Your task to perform on an android device: find which apps use the phone's location Image 0: 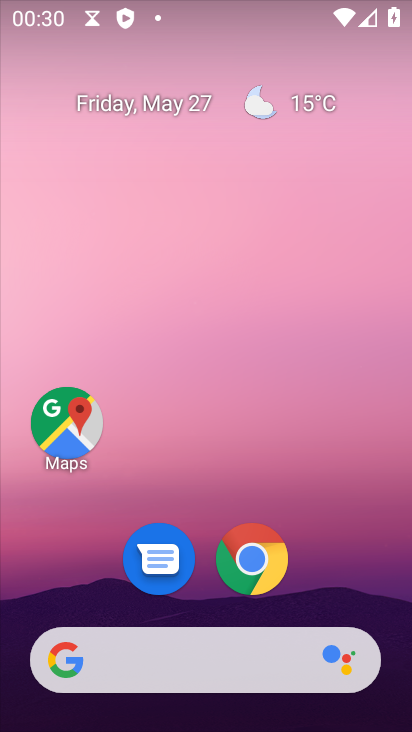
Step 0: drag from (344, 564) to (213, 16)
Your task to perform on an android device: find which apps use the phone's location Image 1: 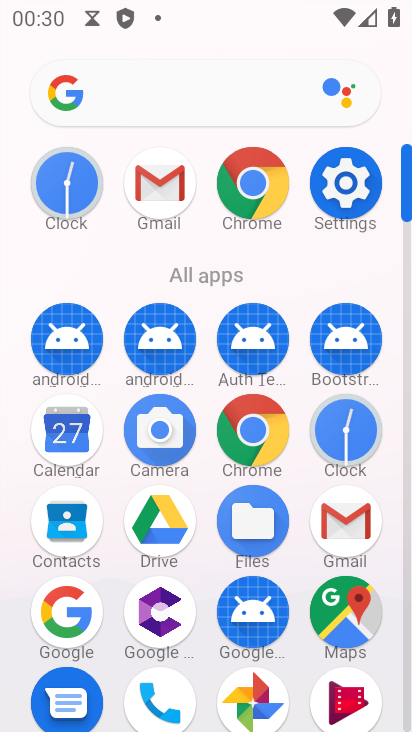
Step 1: click (354, 184)
Your task to perform on an android device: find which apps use the phone's location Image 2: 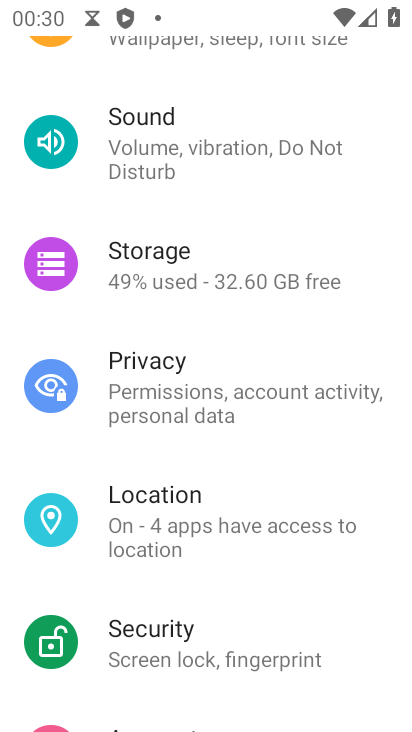
Step 2: click (247, 513)
Your task to perform on an android device: find which apps use the phone's location Image 3: 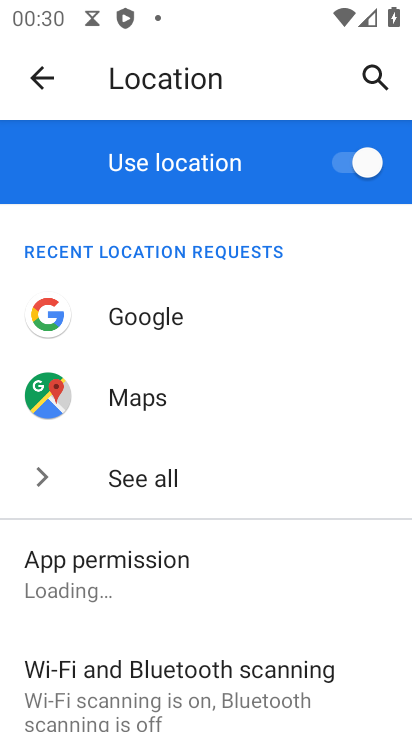
Step 3: drag from (280, 513) to (321, 55)
Your task to perform on an android device: find which apps use the phone's location Image 4: 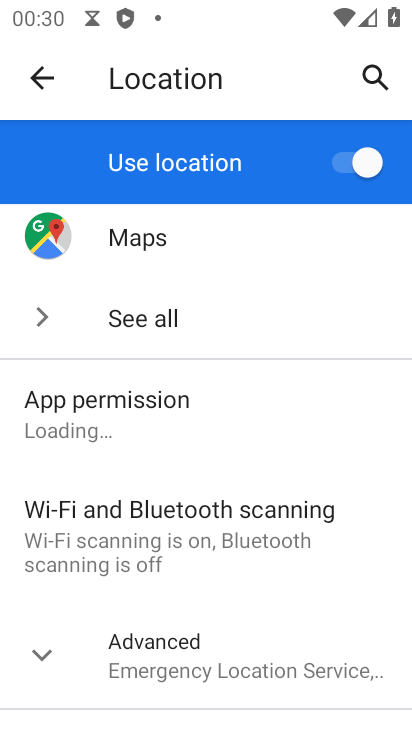
Step 4: drag from (277, 478) to (317, 143)
Your task to perform on an android device: find which apps use the phone's location Image 5: 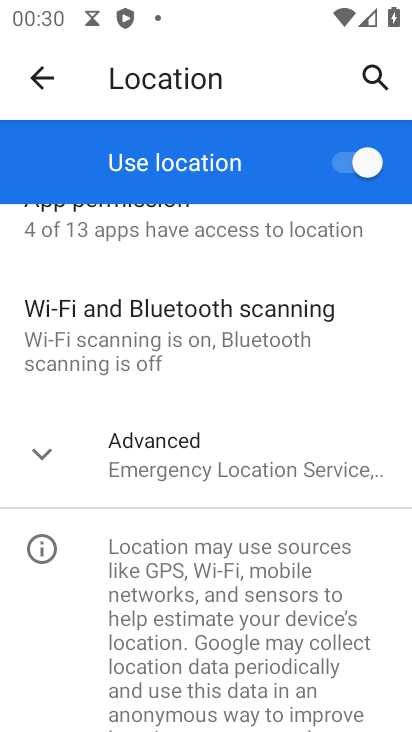
Step 5: drag from (257, 245) to (228, 670)
Your task to perform on an android device: find which apps use the phone's location Image 6: 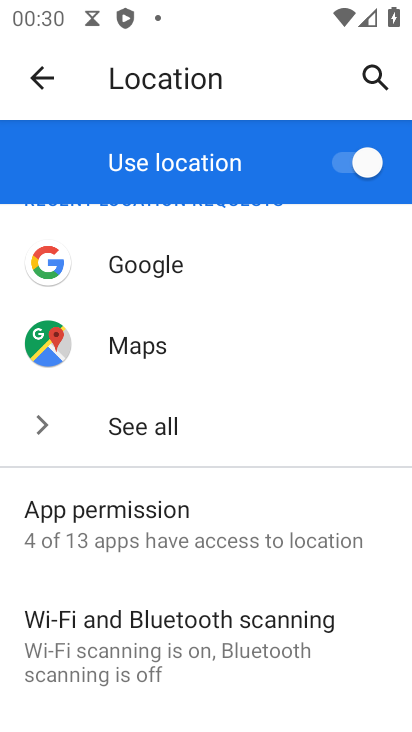
Step 6: click (212, 538)
Your task to perform on an android device: find which apps use the phone's location Image 7: 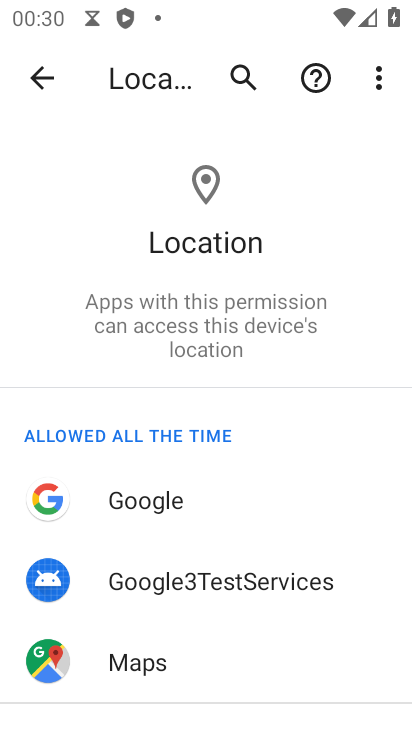
Step 7: task complete